Your task to perform on an android device: Open Yahoo.com Image 0: 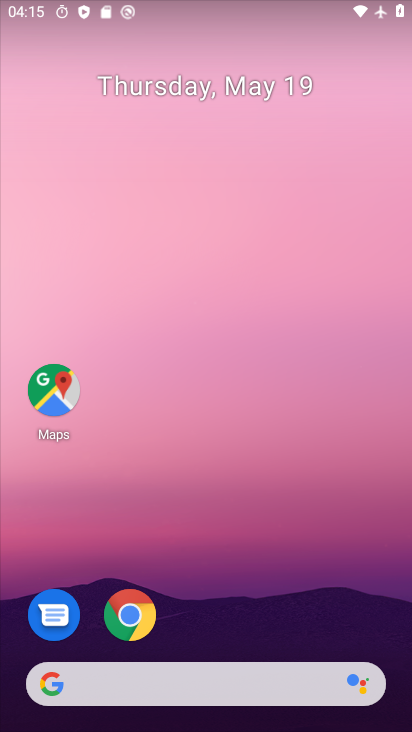
Step 0: click (139, 620)
Your task to perform on an android device: Open Yahoo.com Image 1: 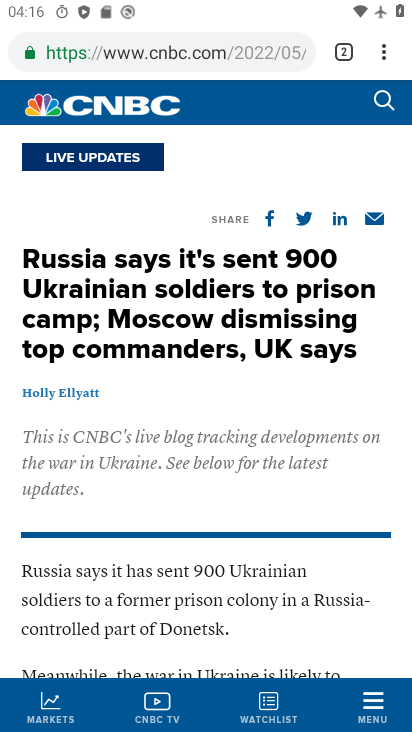
Step 1: click (183, 57)
Your task to perform on an android device: Open Yahoo.com Image 2: 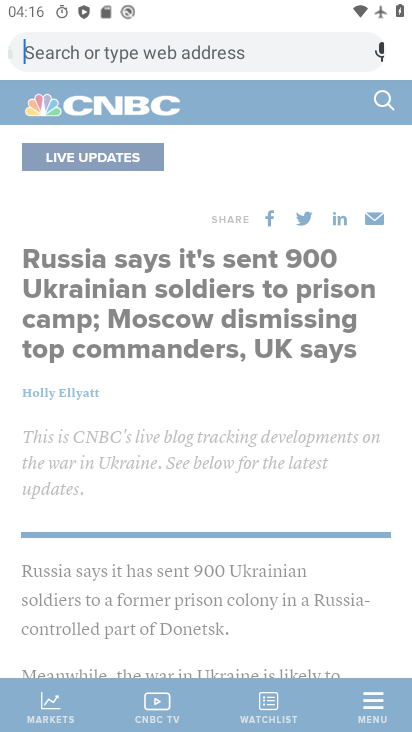
Step 2: click (183, 57)
Your task to perform on an android device: Open Yahoo.com Image 3: 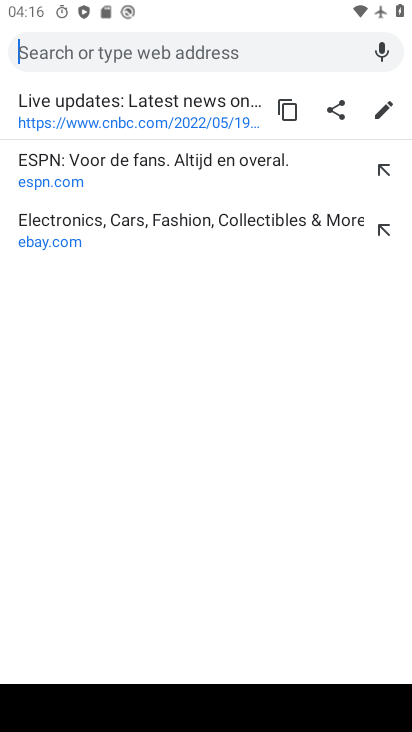
Step 3: type "yahoo.com"
Your task to perform on an android device: Open Yahoo.com Image 4: 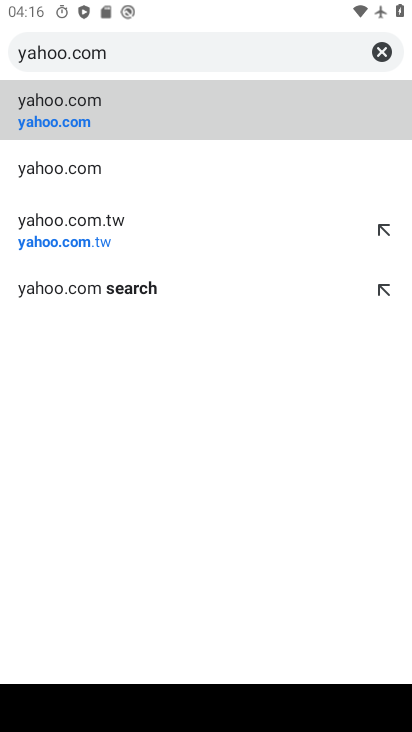
Step 4: click (70, 126)
Your task to perform on an android device: Open Yahoo.com Image 5: 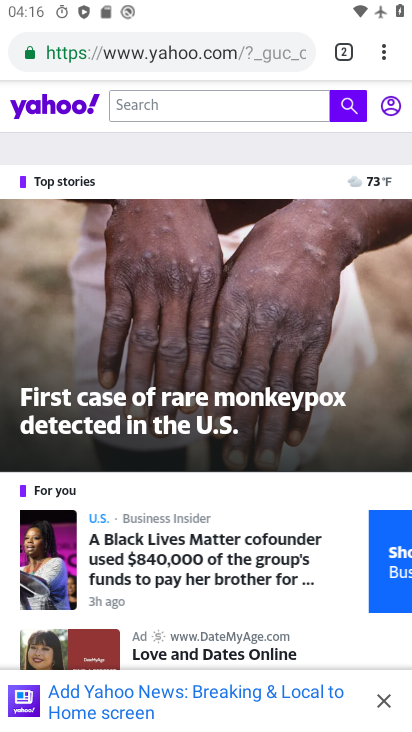
Step 5: task complete